Your task to perform on an android device: Open CNN.com Image 0: 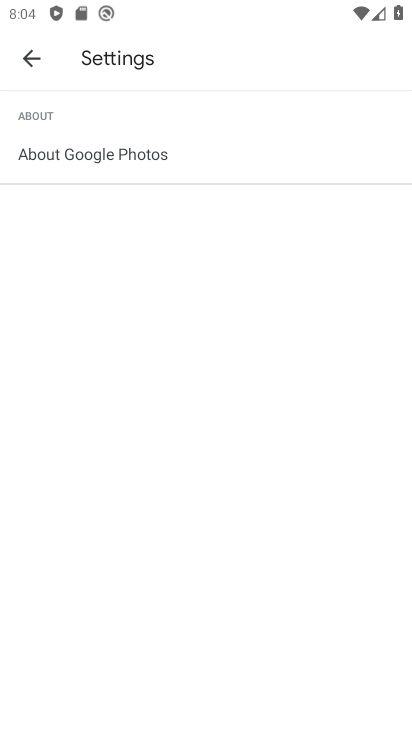
Step 0: press back button
Your task to perform on an android device: Open CNN.com Image 1: 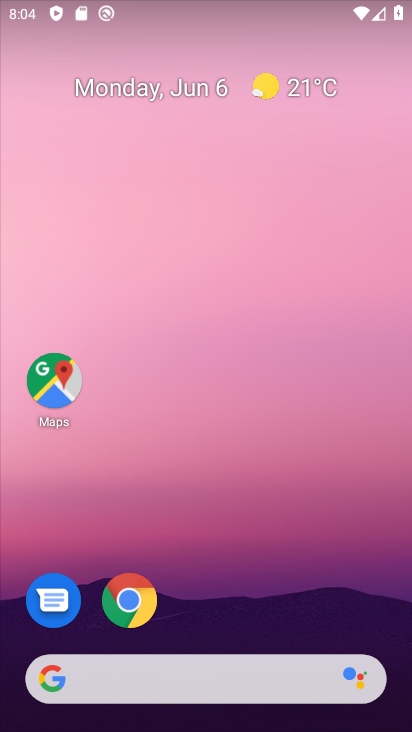
Step 1: drag from (248, 586) to (236, 4)
Your task to perform on an android device: Open CNN.com Image 2: 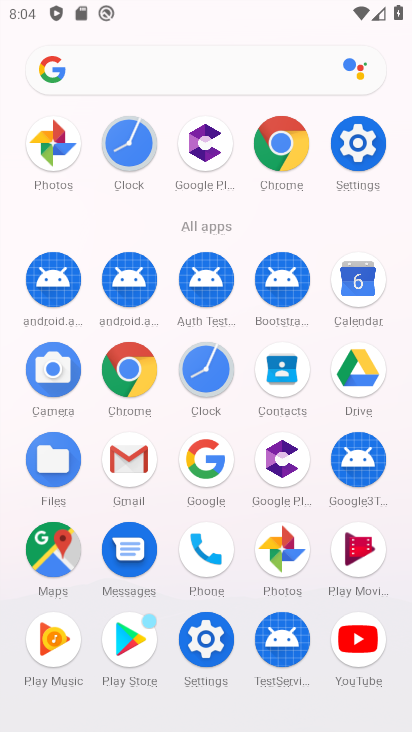
Step 2: click (129, 360)
Your task to perform on an android device: Open CNN.com Image 3: 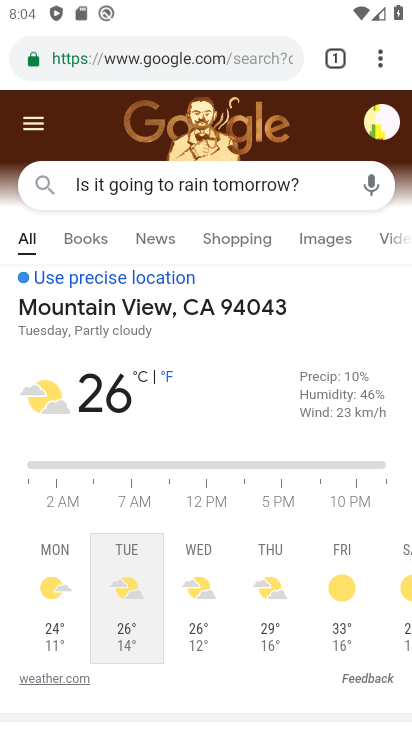
Step 3: click (172, 66)
Your task to perform on an android device: Open CNN.com Image 4: 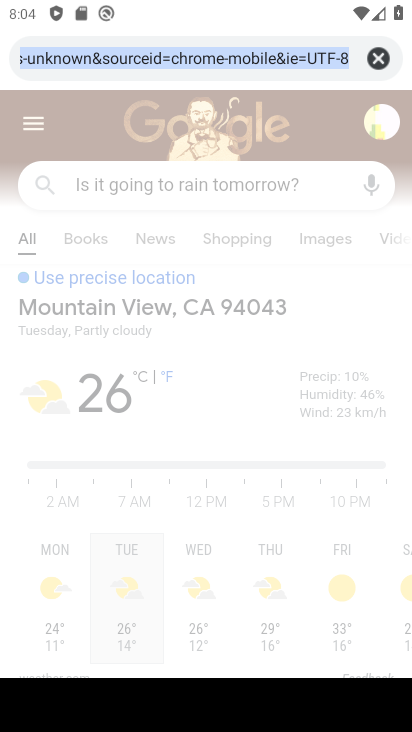
Step 4: click (380, 52)
Your task to perform on an android device: Open CNN.com Image 5: 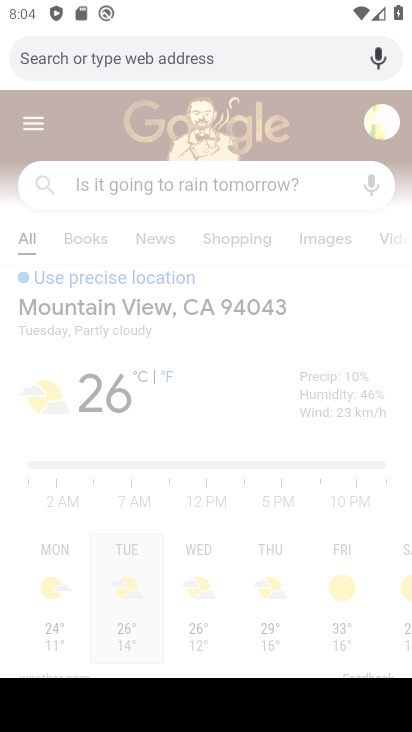
Step 5: type "CNN.com"
Your task to perform on an android device: Open CNN.com Image 6: 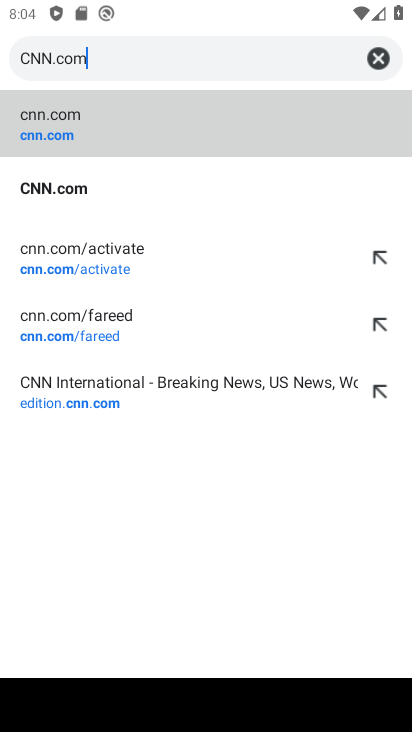
Step 6: type ""
Your task to perform on an android device: Open CNN.com Image 7: 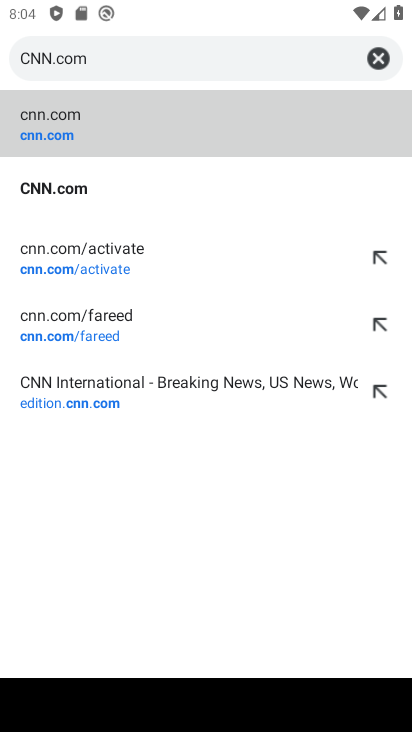
Step 7: click (167, 118)
Your task to perform on an android device: Open CNN.com Image 8: 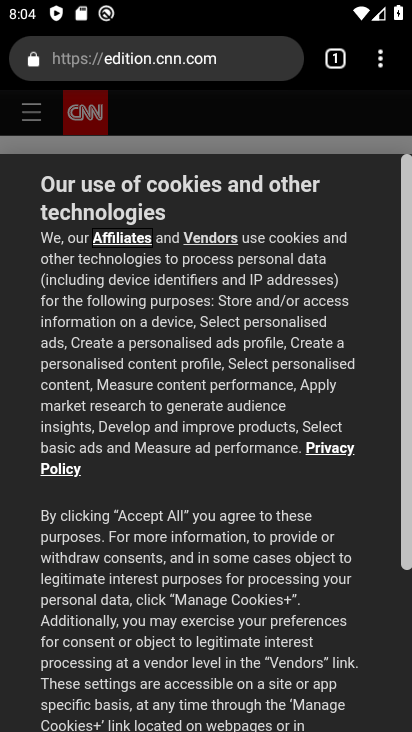
Step 8: task complete